Your task to perform on an android device: Open notification settings Image 0: 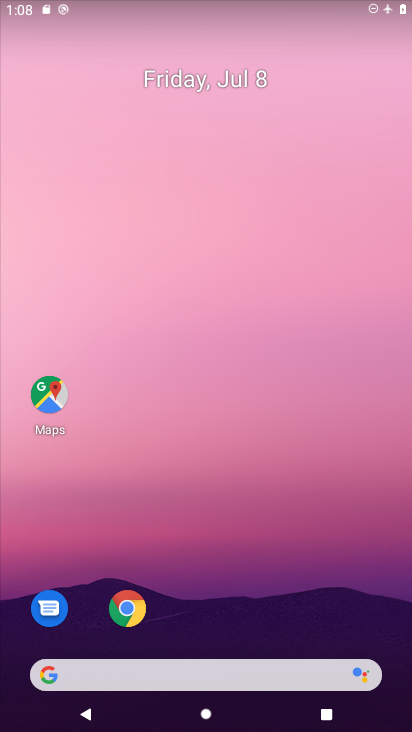
Step 0: drag from (220, 617) to (215, 15)
Your task to perform on an android device: Open notification settings Image 1: 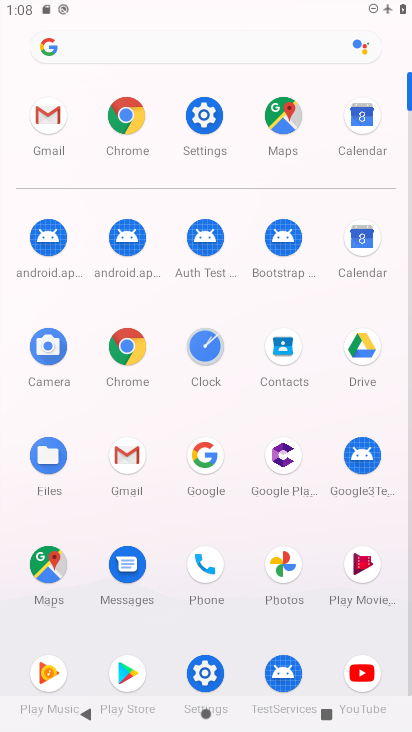
Step 1: click (203, 156)
Your task to perform on an android device: Open notification settings Image 2: 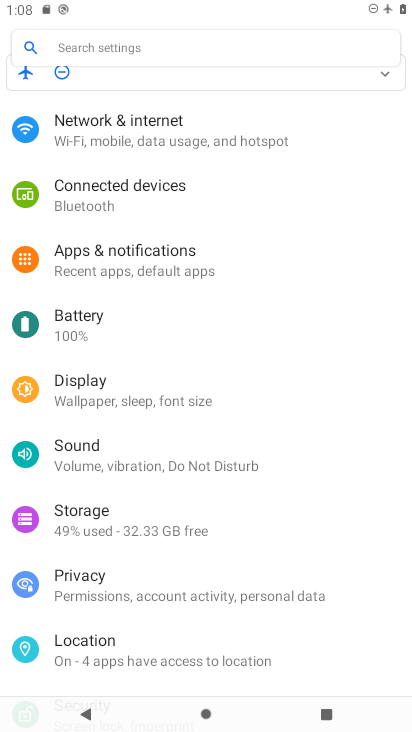
Step 2: click (186, 277)
Your task to perform on an android device: Open notification settings Image 3: 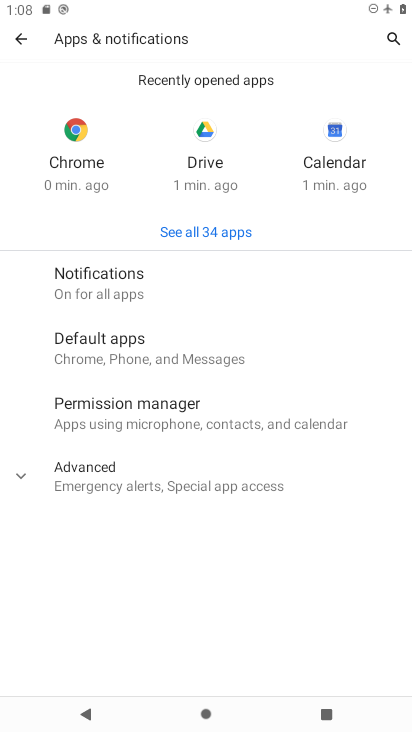
Step 3: task complete